Your task to perform on an android device: toggle sleep mode Image 0: 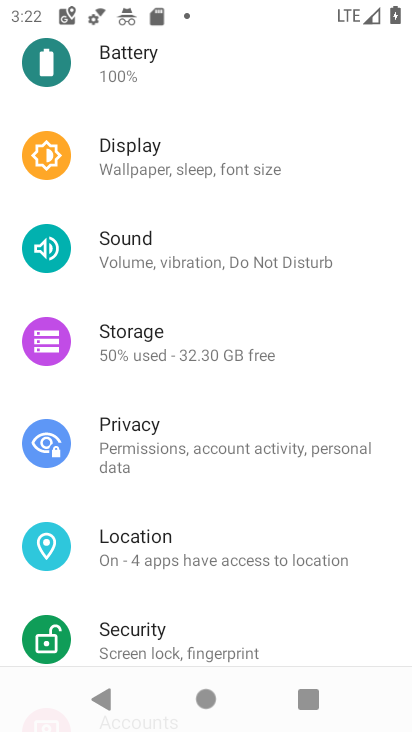
Step 0: click (231, 170)
Your task to perform on an android device: toggle sleep mode Image 1: 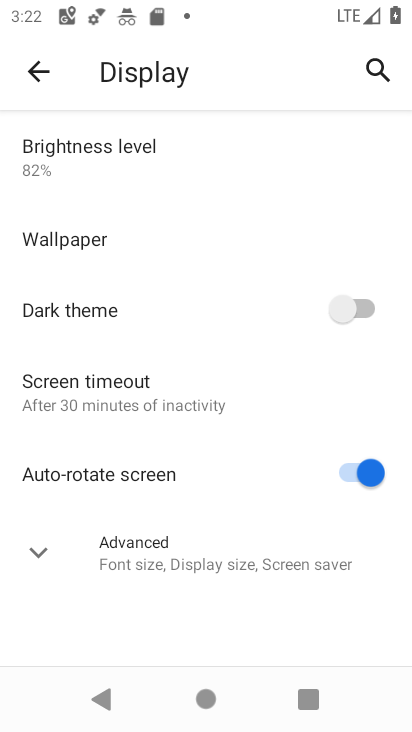
Step 1: task complete